Your task to perform on an android device: check data usage Image 0: 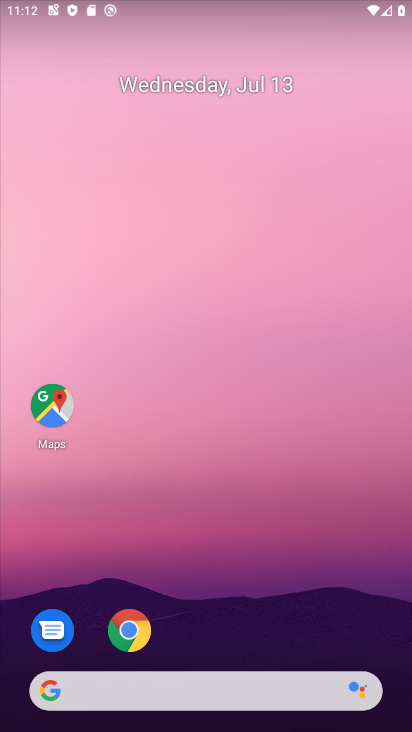
Step 0: drag from (369, 632) to (411, 369)
Your task to perform on an android device: check data usage Image 1: 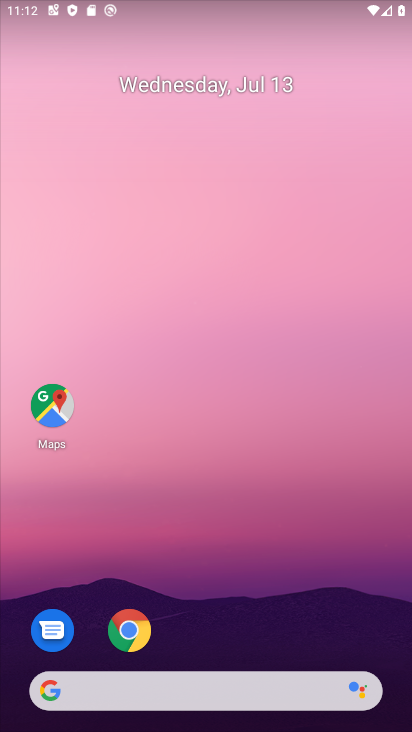
Step 1: drag from (317, 618) to (331, 86)
Your task to perform on an android device: check data usage Image 2: 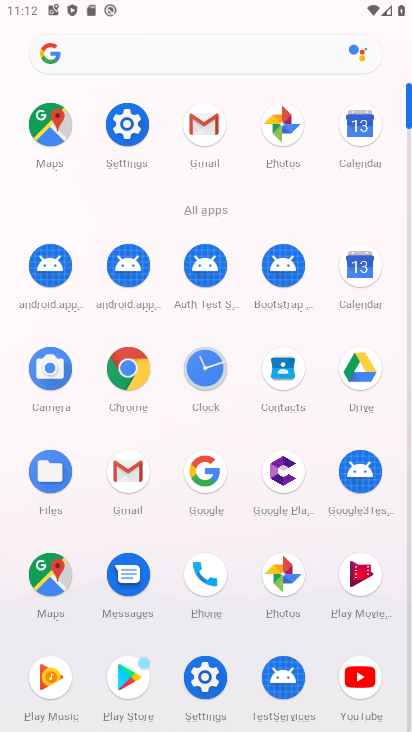
Step 2: click (201, 674)
Your task to perform on an android device: check data usage Image 3: 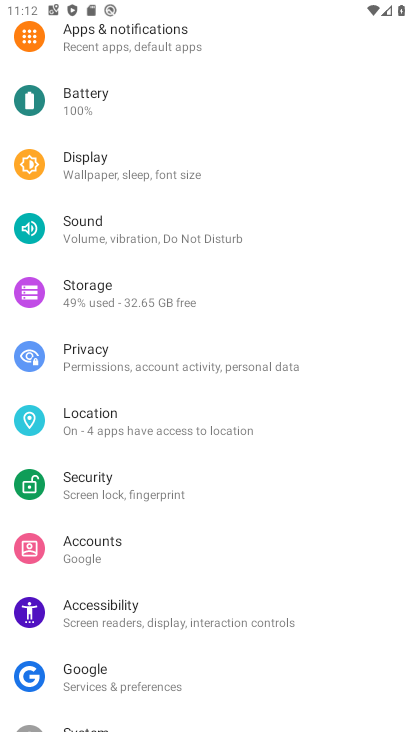
Step 3: drag from (327, 252) to (354, 381)
Your task to perform on an android device: check data usage Image 4: 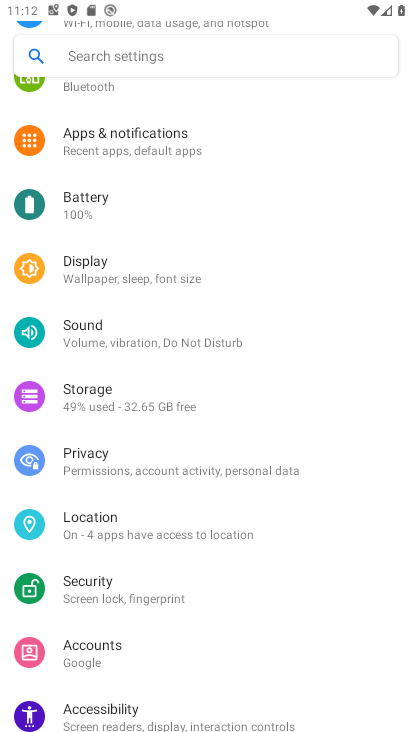
Step 4: drag from (336, 230) to (337, 410)
Your task to perform on an android device: check data usage Image 5: 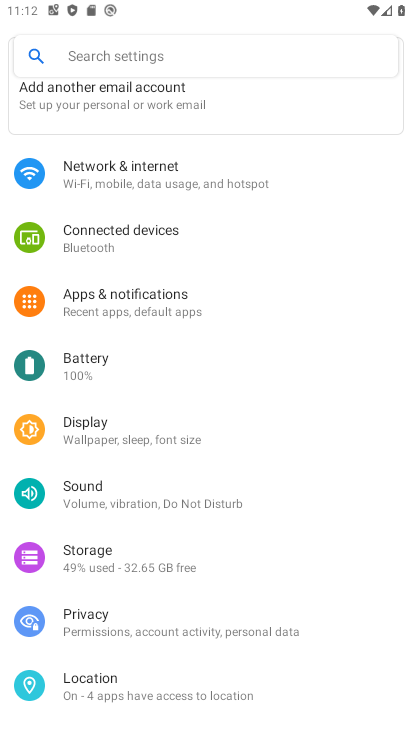
Step 5: drag from (325, 284) to (337, 416)
Your task to perform on an android device: check data usage Image 6: 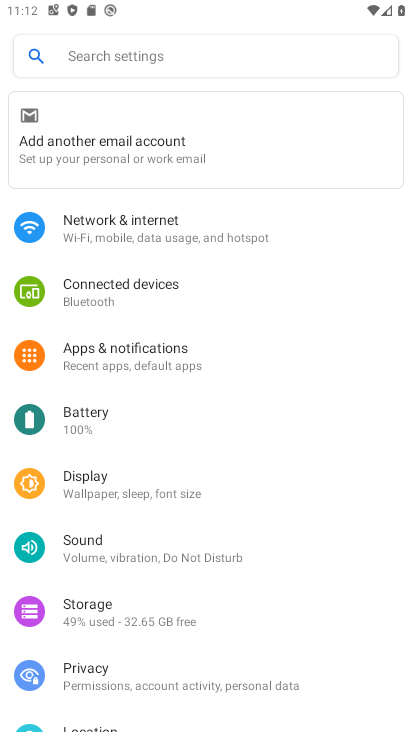
Step 6: drag from (332, 516) to (333, 417)
Your task to perform on an android device: check data usage Image 7: 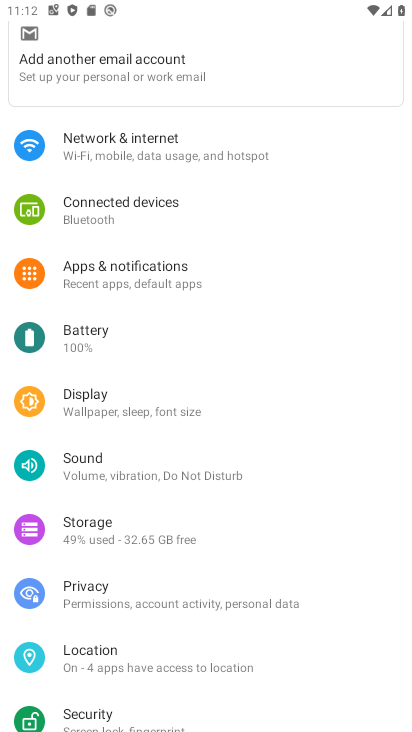
Step 7: drag from (344, 564) to (336, 470)
Your task to perform on an android device: check data usage Image 8: 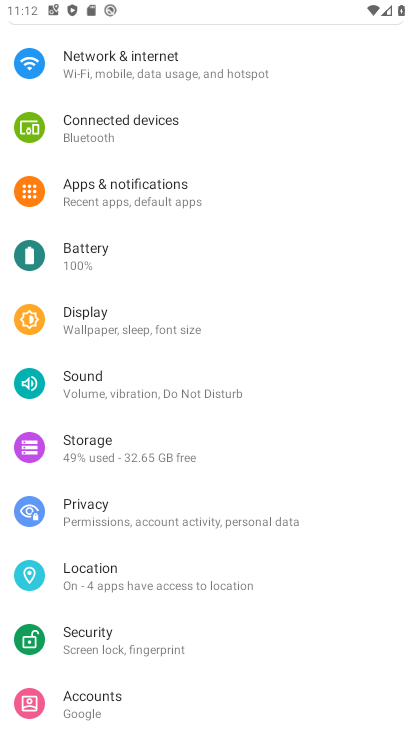
Step 8: drag from (332, 600) to (335, 500)
Your task to perform on an android device: check data usage Image 9: 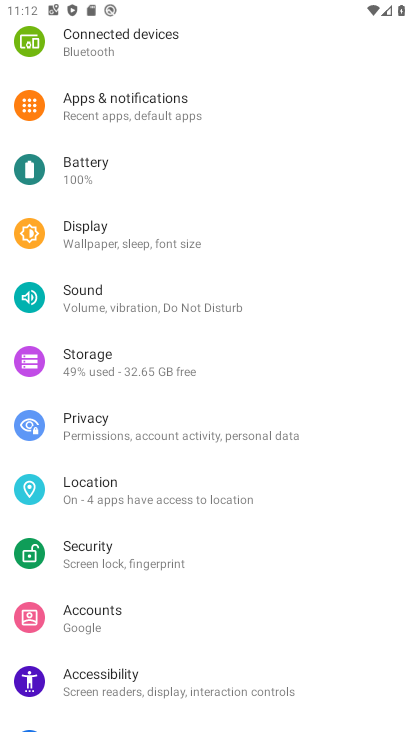
Step 9: drag from (327, 600) to (326, 491)
Your task to perform on an android device: check data usage Image 10: 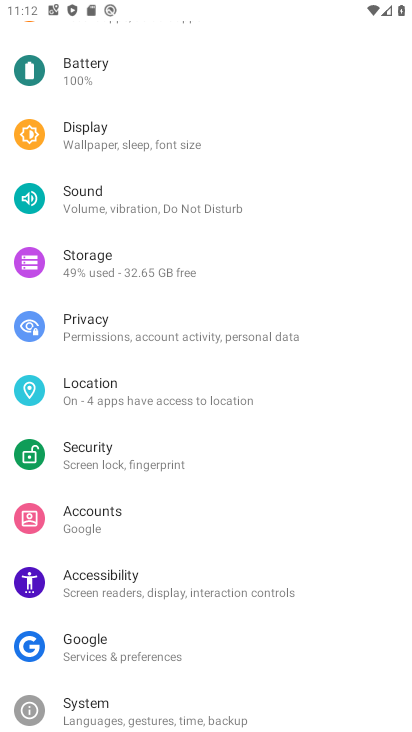
Step 10: drag from (358, 480) to (348, 368)
Your task to perform on an android device: check data usage Image 11: 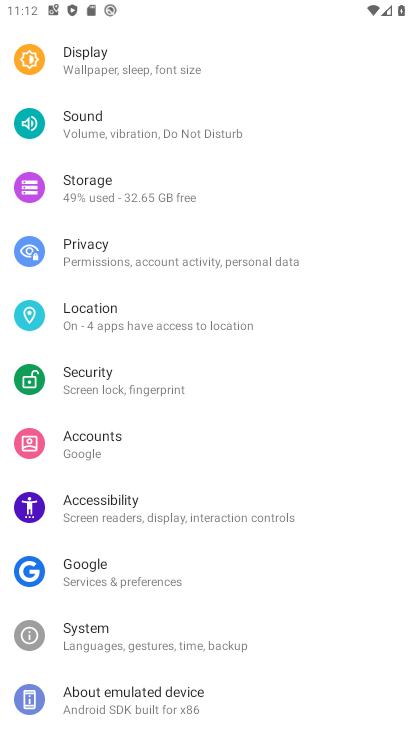
Step 11: drag from (344, 327) to (345, 424)
Your task to perform on an android device: check data usage Image 12: 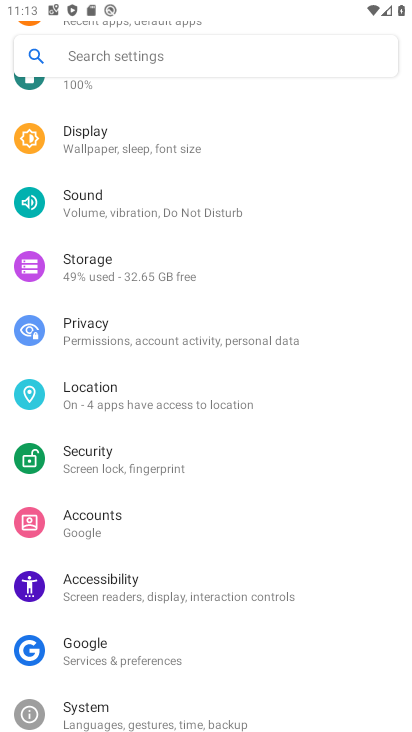
Step 12: drag from (338, 276) to (338, 400)
Your task to perform on an android device: check data usage Image 13: 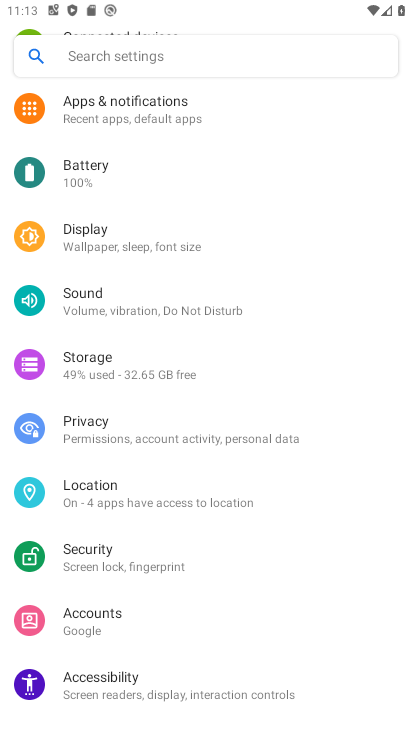
Step 13: drag from (331, 264) to (325, 382)
Your task to perform on an android device: check data usage Image 14: 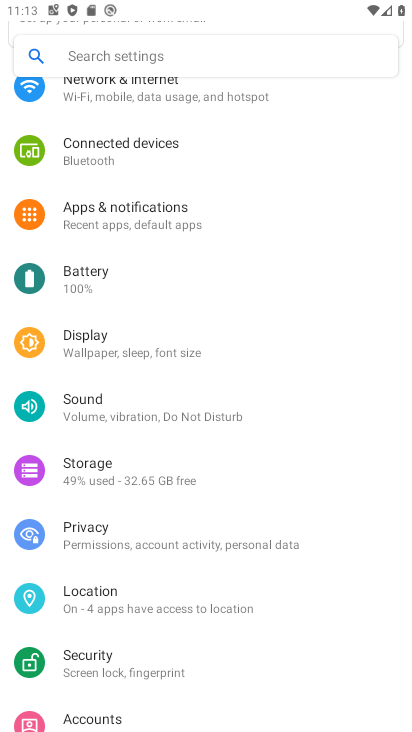
Step 14: drag from (319, 262) to (326, 399)
Your task to perform on an android device: check data usage Image 15: 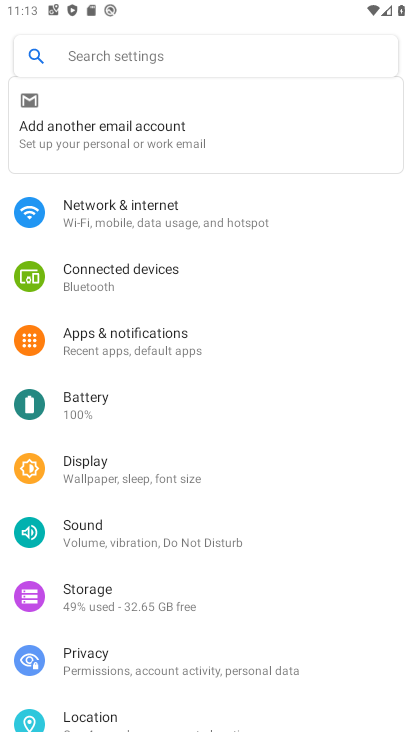
Step 15: click (229, 217)
Your task to perform on an android device: check data usage Image 16: 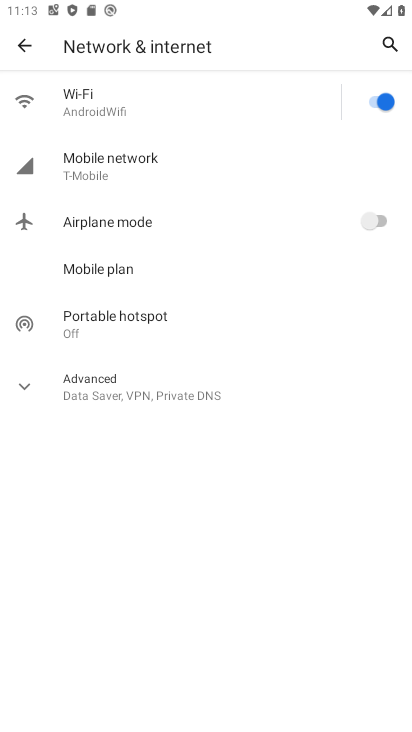
Step 16: click (109, 160)
Your task to perform on an android device: check data usage Image 17: 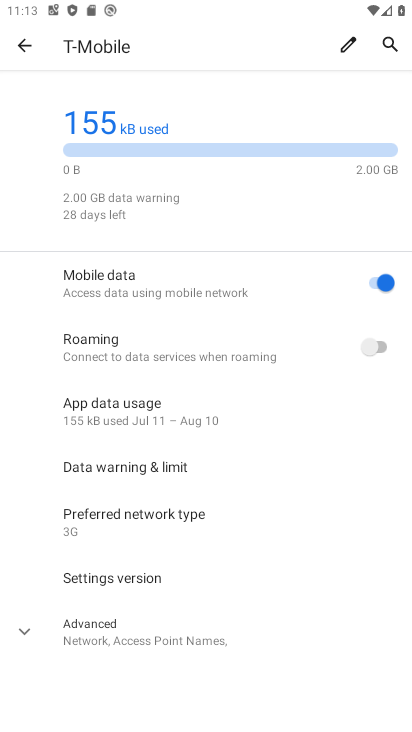
Step 17: click (147, 426)
Your task to perform on an android device: check data usage Image 18: 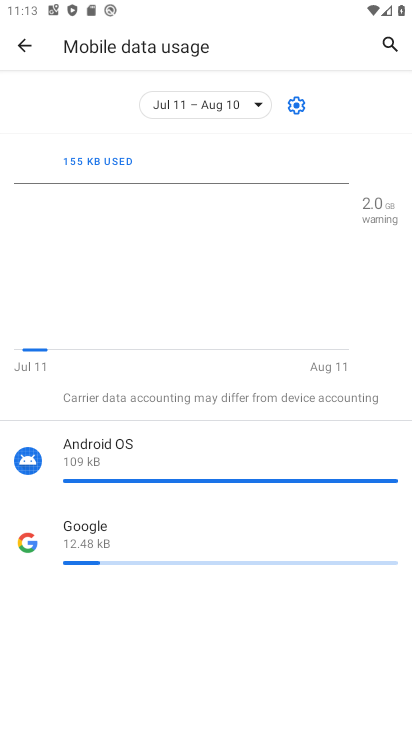
Step 18: task complete